Your task to perform on an android device: turn off sleep mode Image 0: 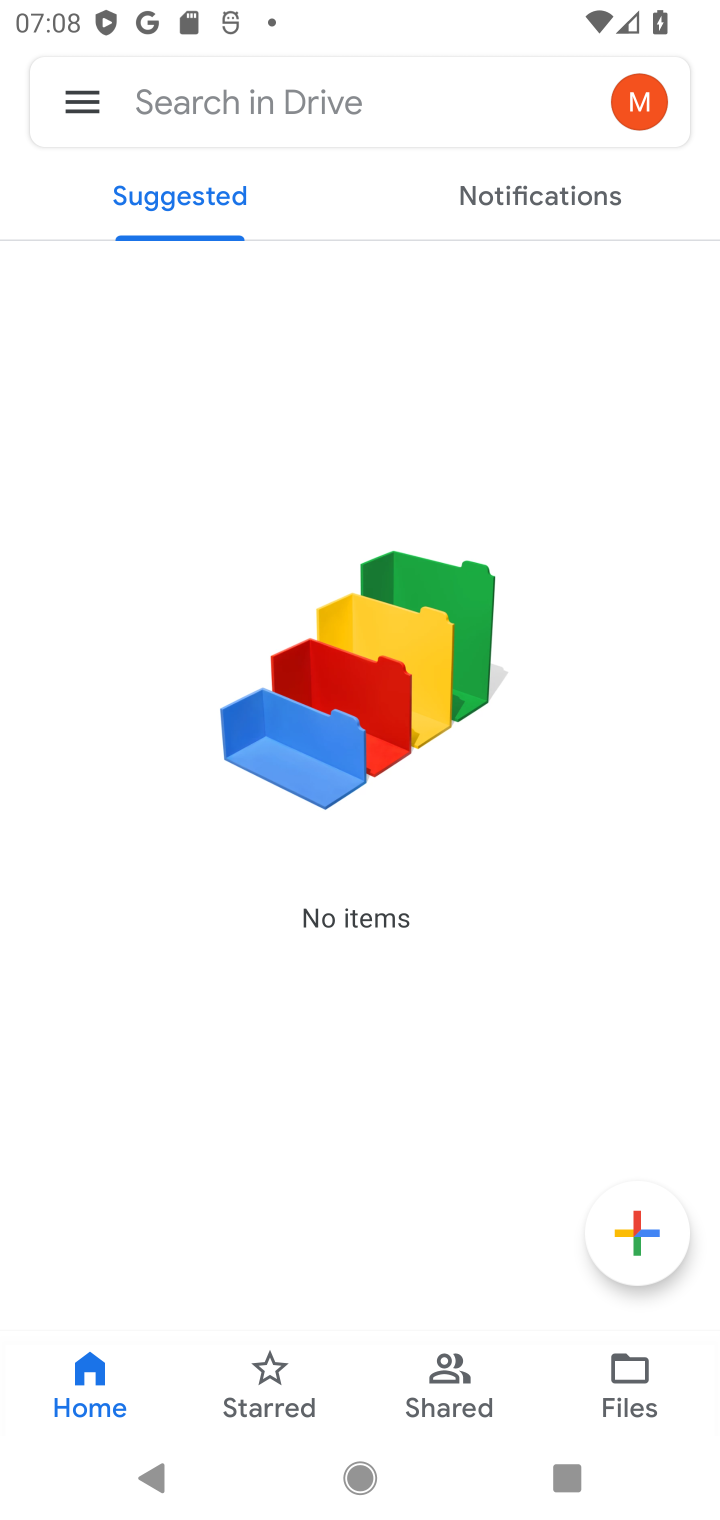
Step 0: press home button
Your task to perform on an android device: turn off sleep mode Image 1: 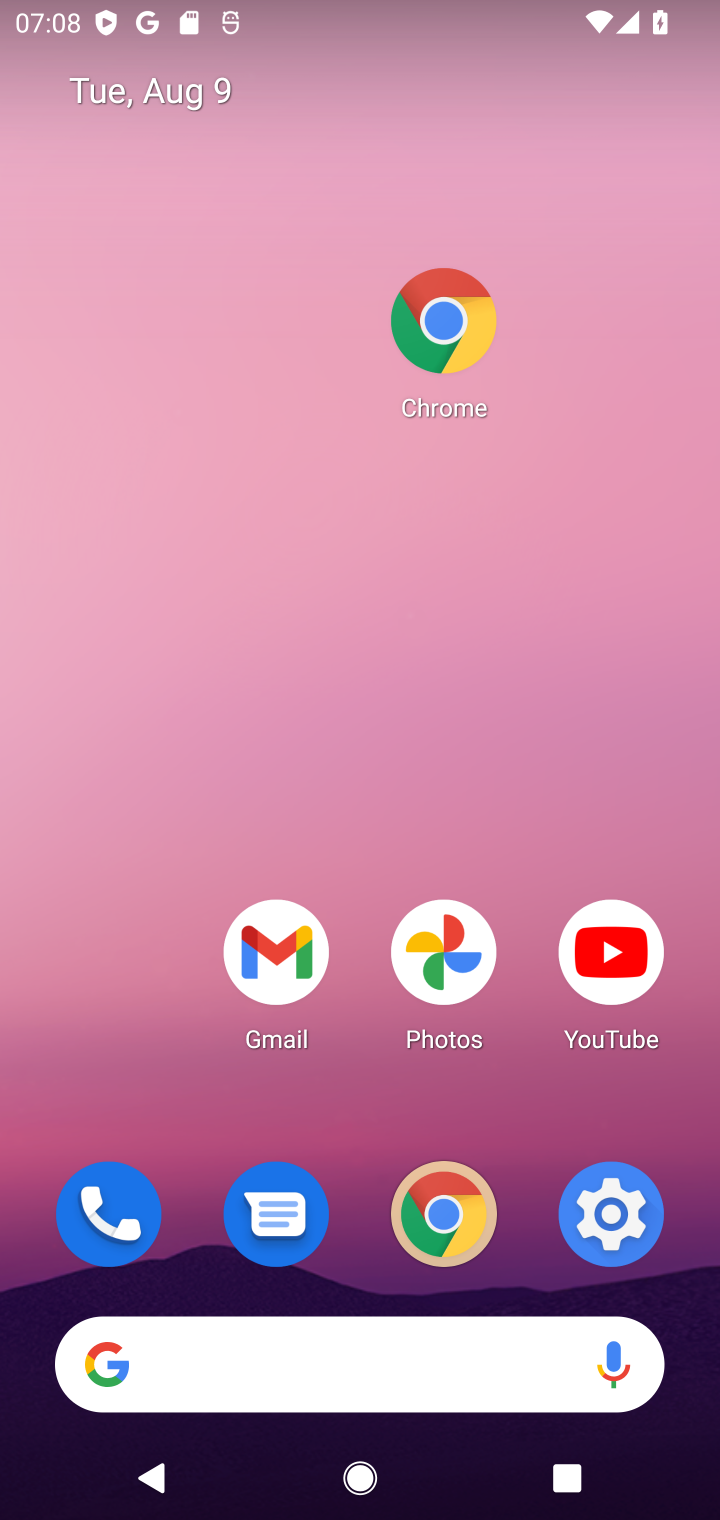
Step 1: drag from (571, 1333) to (562, 576)
Your task to perform on an android device: turn off sleep mode Image 2: 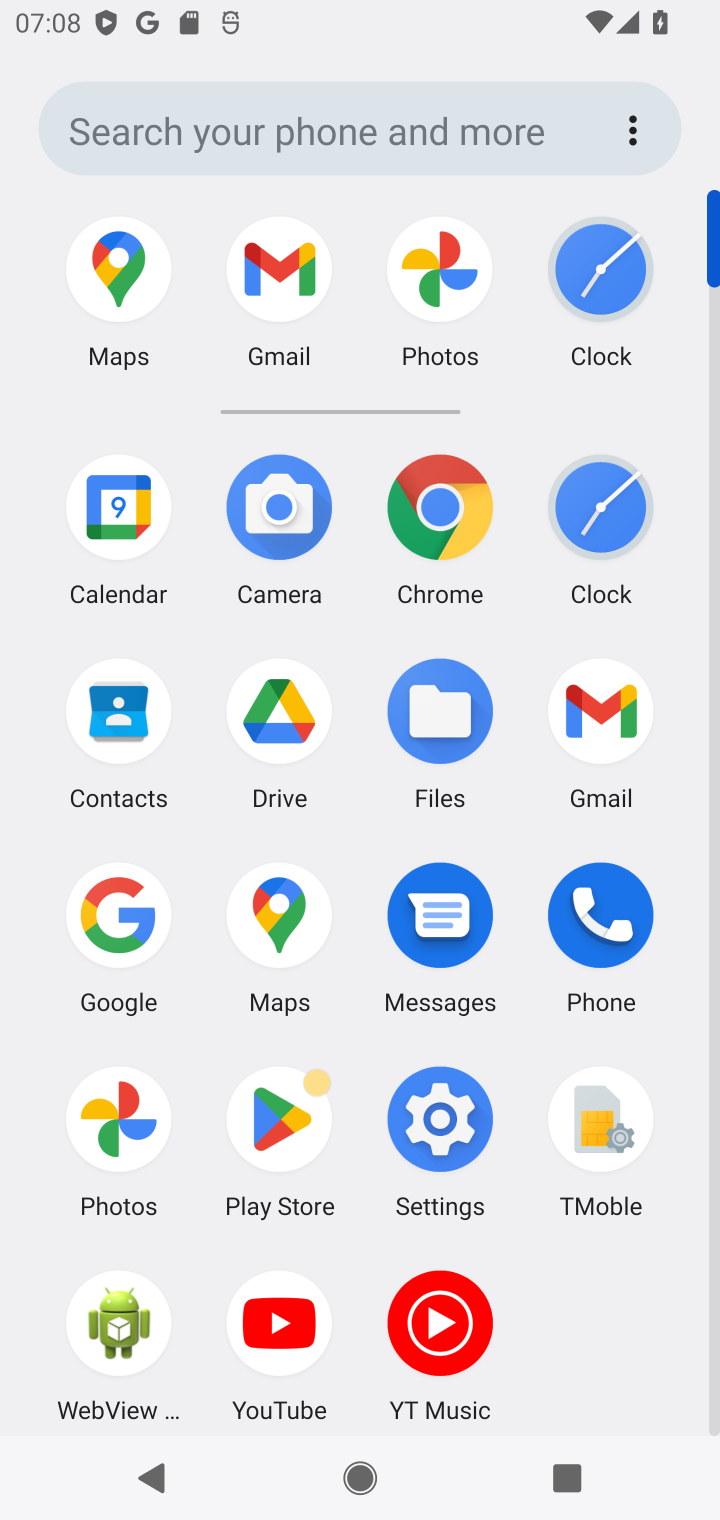
Step 2: click (445, 1111)
Your task to perform on an android device: turn off sleep mode Image 3: 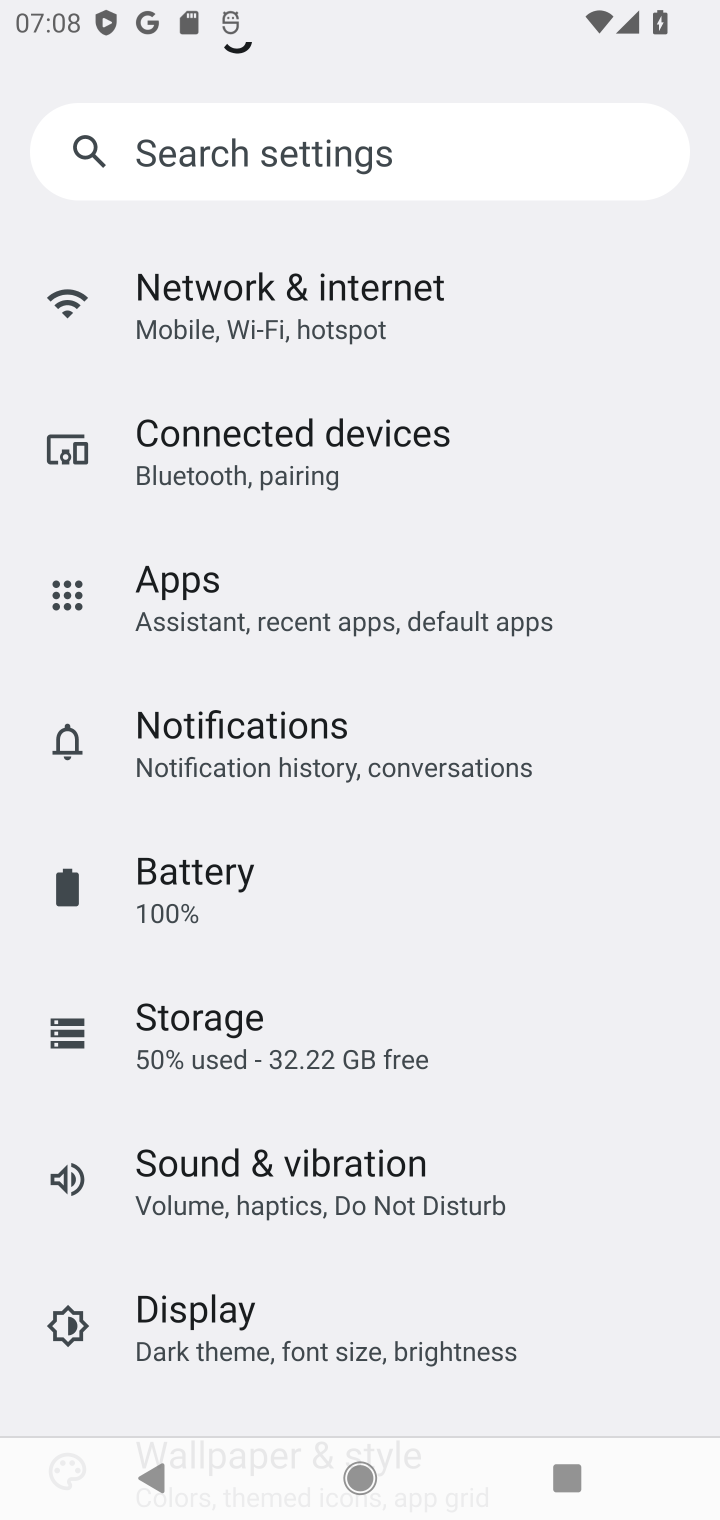
Step 3: click (235, 158)
Your task to perform on an android device: turn off sleep mode Image 4: 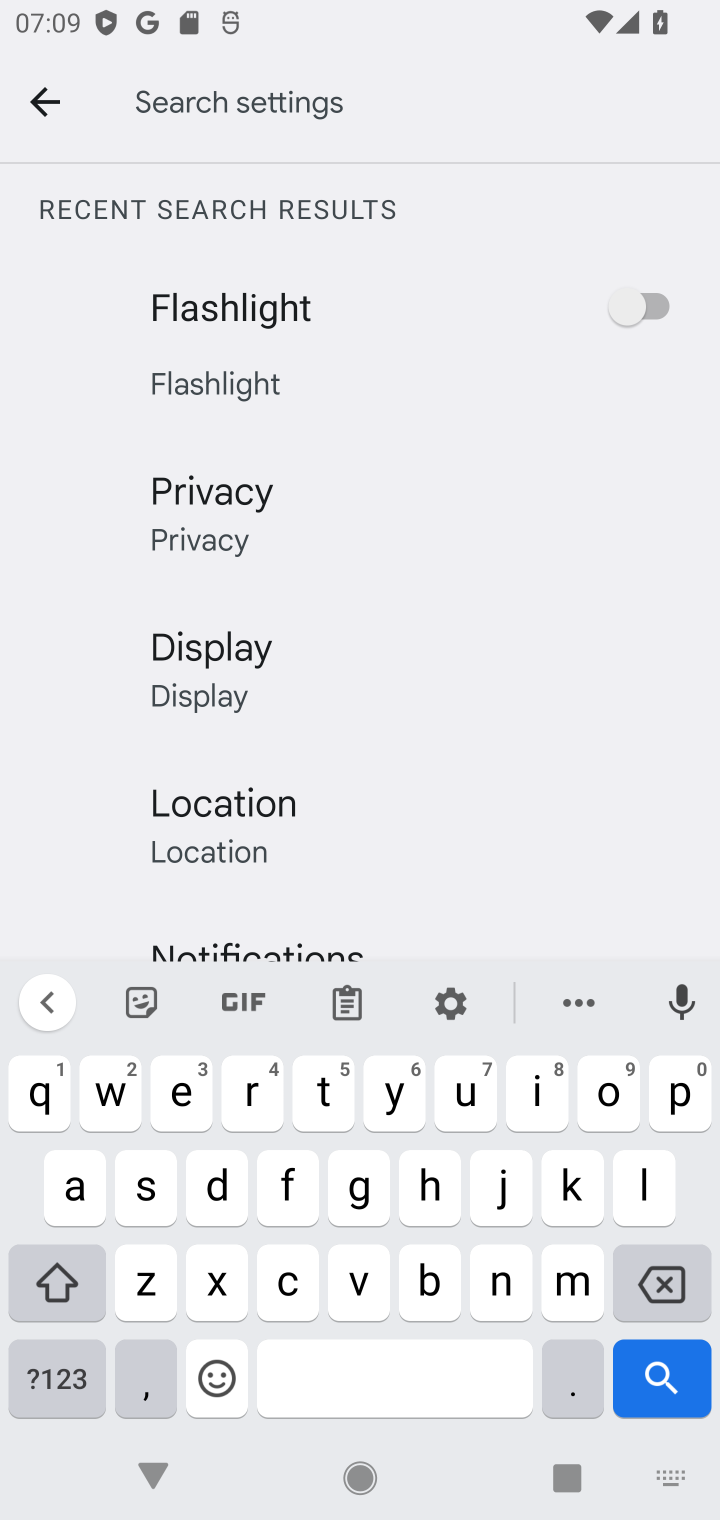
Step 4: click (144, 1203)
Your task to perform on an android device: turn off sleep mode Image 5: 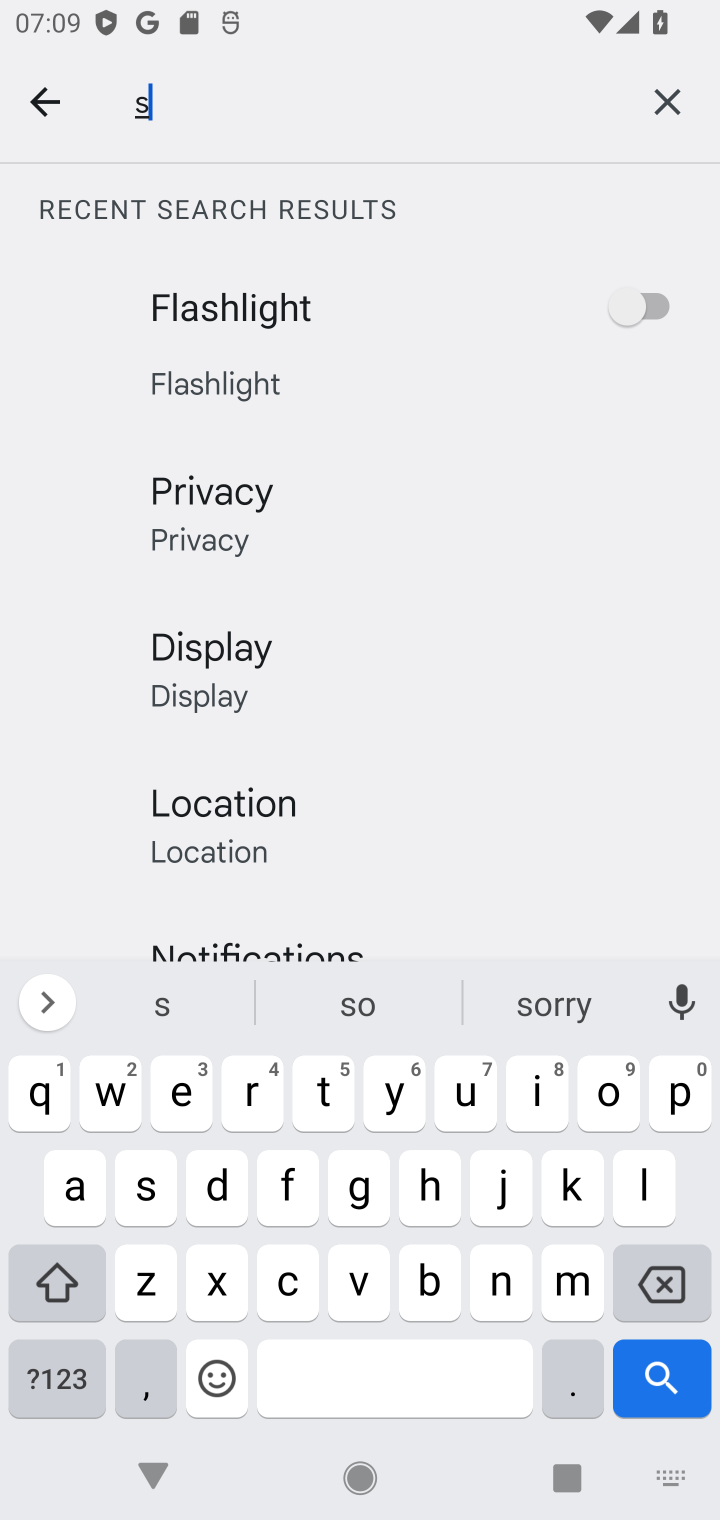
Step 5: click (638, 1192)
Your task to perform on an android device: turn off sleep mode Image 6: 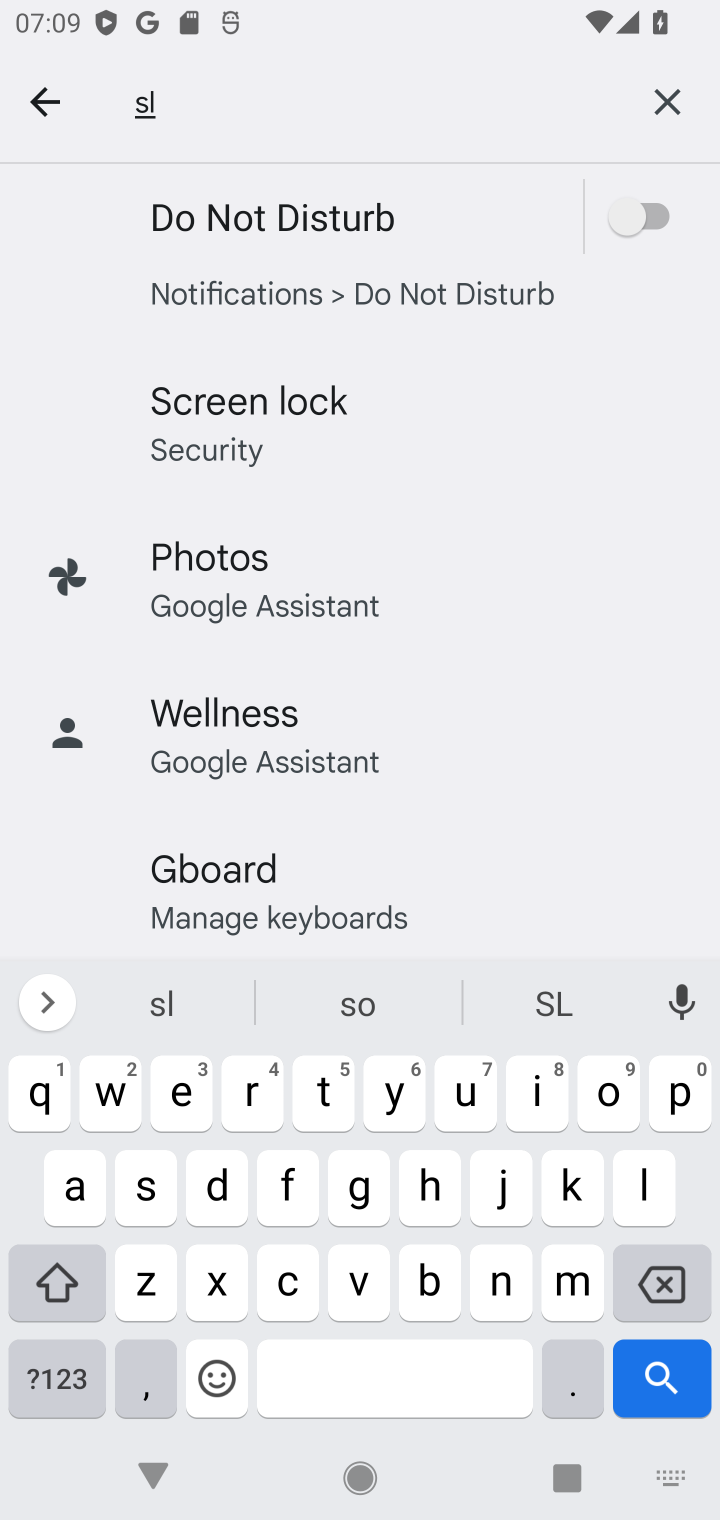
Step 6: click (313, 273)
Your task to perform on an android device: turn off sleep mode Image 7: 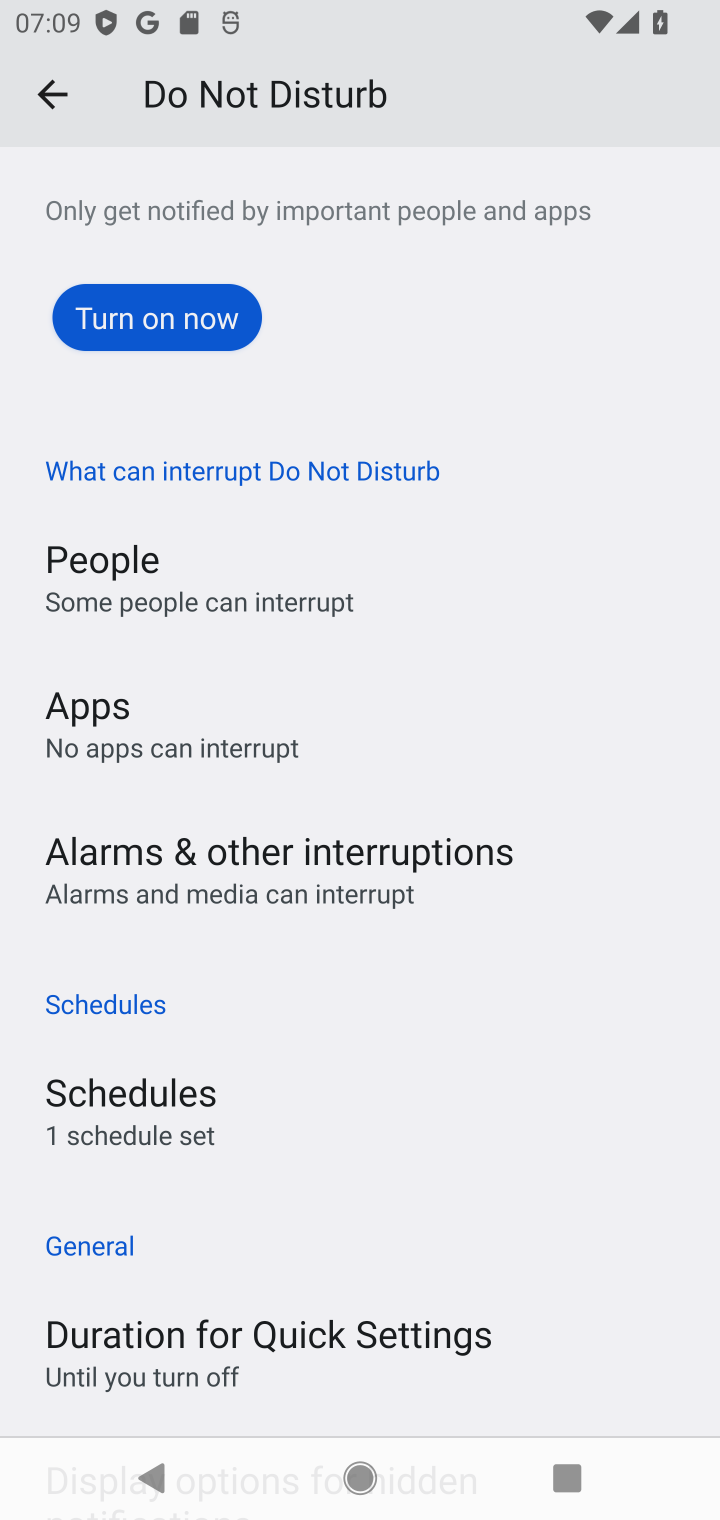
Step 7: task complete